Your task to perform on an android device: make emails show in primary in the gmail app Image 0: 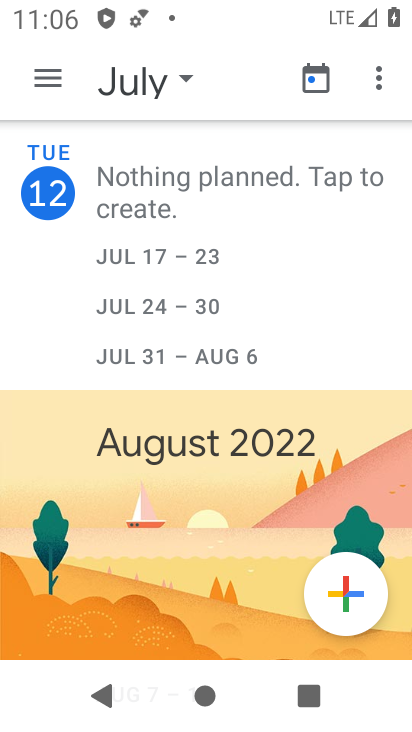
Step 0: press home button
Your task to perform on an android device: make emails show in primary in the gmail app Image 1: 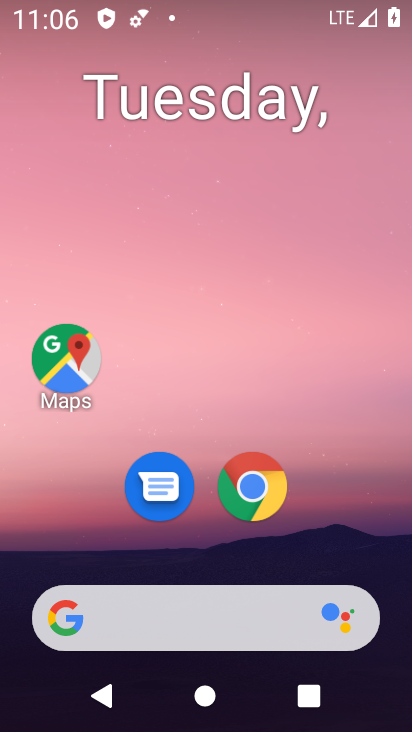
Step 1: drag from (374, 546) to (382, 81)
Your task to perform on an android device: make emails show in primary in the gmail app Image 2: 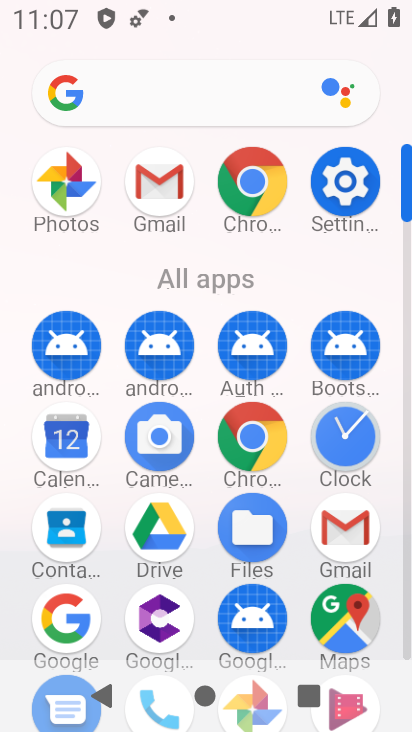
Step 2: click (347, 528)
Your task to perform on an android device: make emails show in primary in the gmail app Image 3: 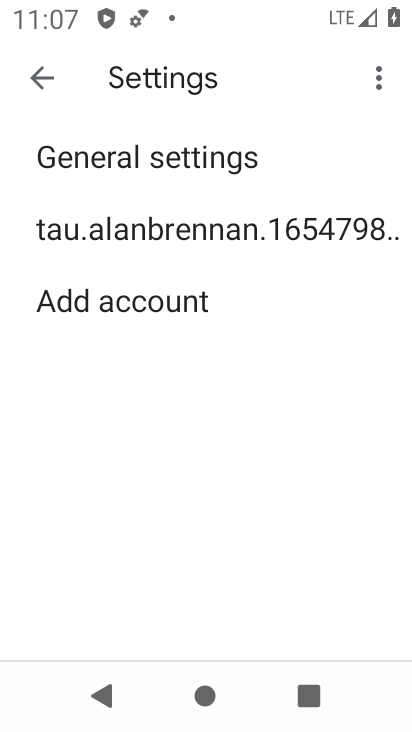
Step 3: click (280, 232)
Your task to perform on an android device: make emails show in primary in the gmail app Image 4: 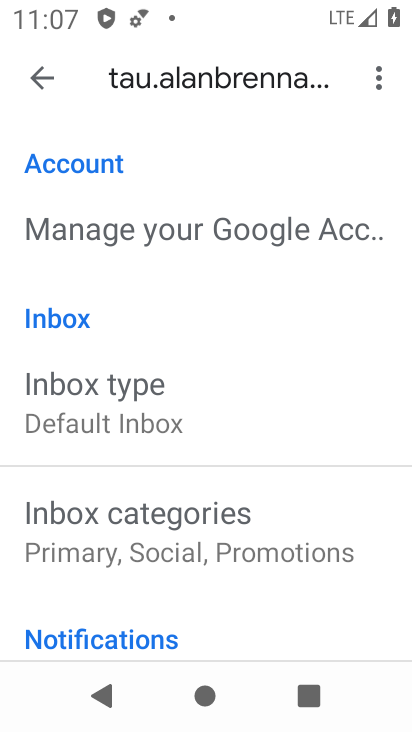
Step 4: drag from (341, 400) to (345, 286)
Your task to perform on an android device: make emails show in primary in the gmail app Image 5: 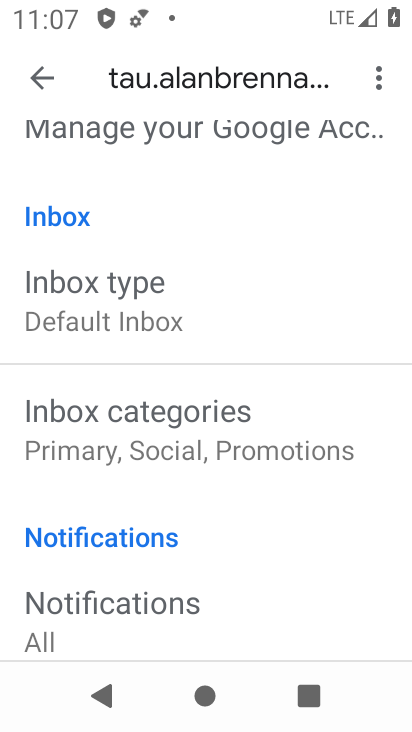
Step 5: drag from (344, 499) to (342, 345)
Your task to perform on an android device: make emails show in primary in the gmail app Image 6: 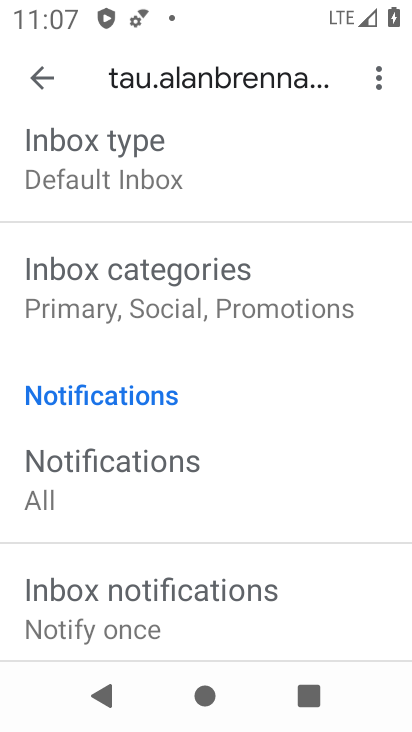
Step 6: click (285, 297)
Your task to perform on an android device: make emails show in primary in the gmail app Image 7: 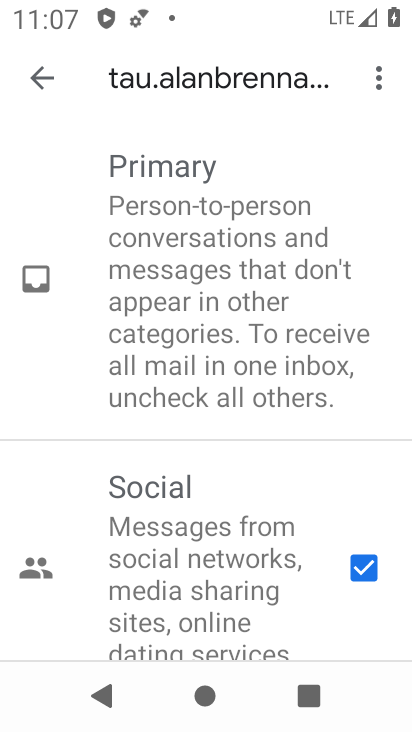
Step 7: drag from (313, 453) to (315, 302)
Your task to perform on an android device: make emails show in primary in the gmail app Image 8: 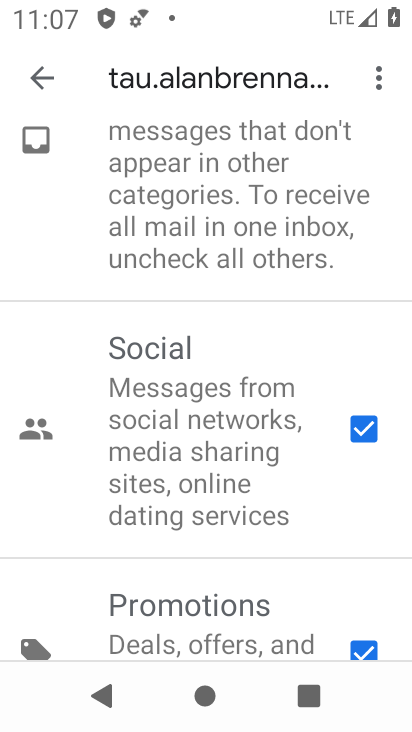
Step 8: drag from (312, 495) to (310, 354)
Your task to perform on an android device: make emails show in primary in the gmail app Image 9: 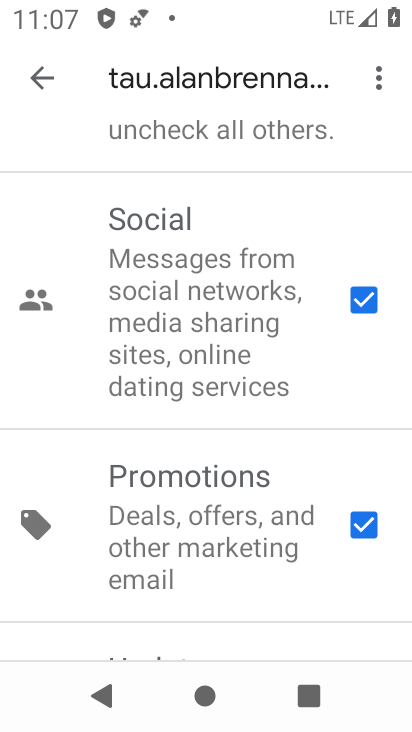
Step 9: click (364, 523)
Your task to perform on an android device: make emails show in primary in the gmail app Image 10: 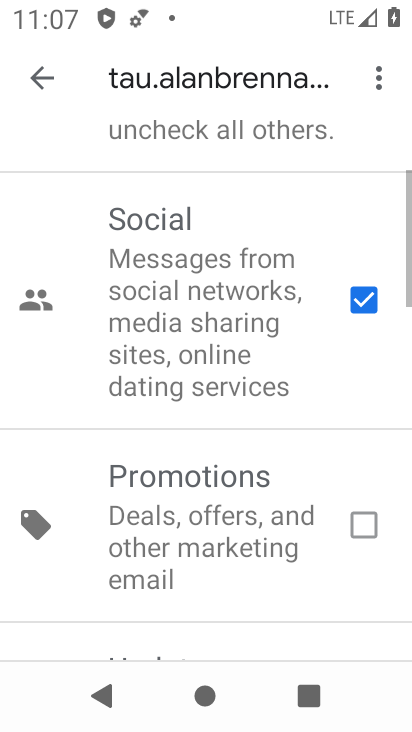
Step 10: click (366, 305)
Your task to perform on an android device: make emails show in primary in the gmail app Image 11: 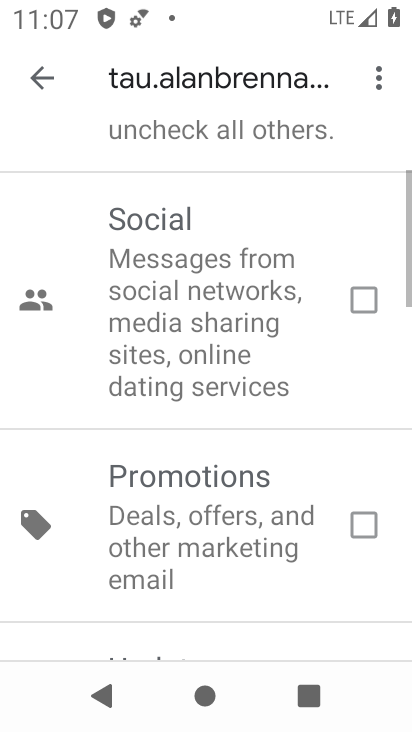
Step 11: task complete